Your task to perform on an android device: open wifi settings Image 0: 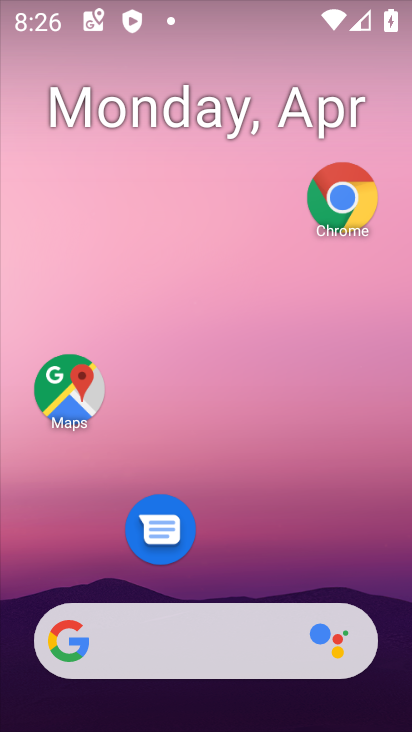
Step 0: drag from (73, 14) to (142, 438)
Your task to perform on an android device: open wifi settings Image 1: 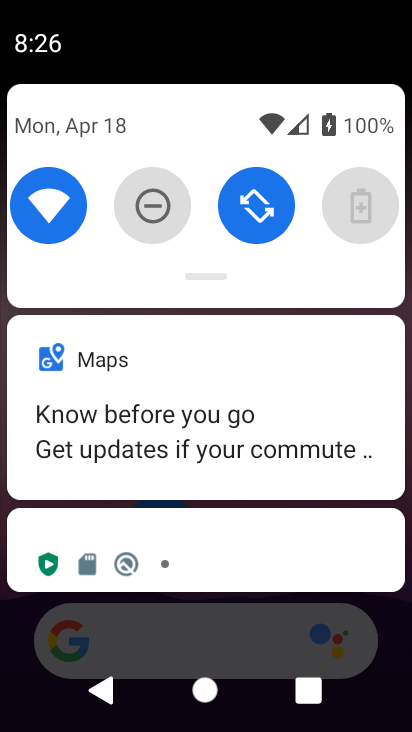
Step 1: click (66, 205)
Your task to perform on an android device: open wifi settings Image 2: 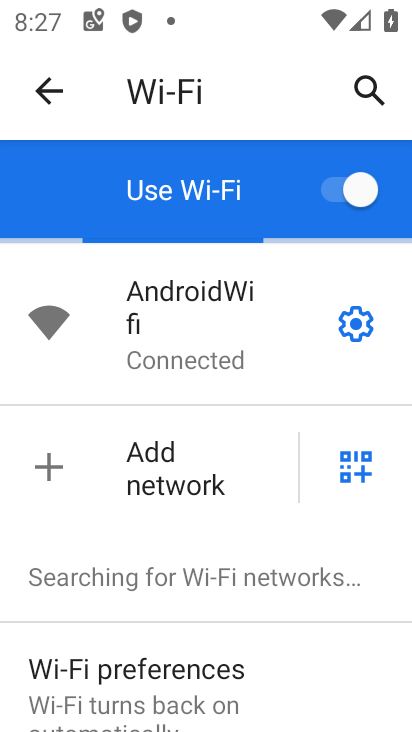
Step 2: task complete